Your task to perform on an android device: Show me productivity apps on the Play Store Image 0: 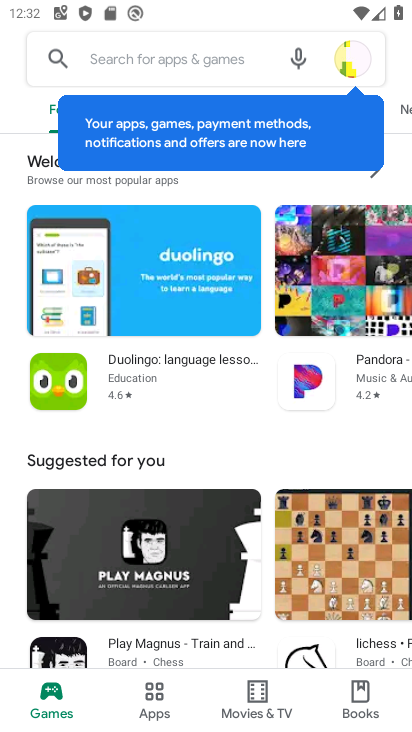
Step 0: press home button
Your task to perform on an android device: Show me productivity apps on the Play Store Image 1: 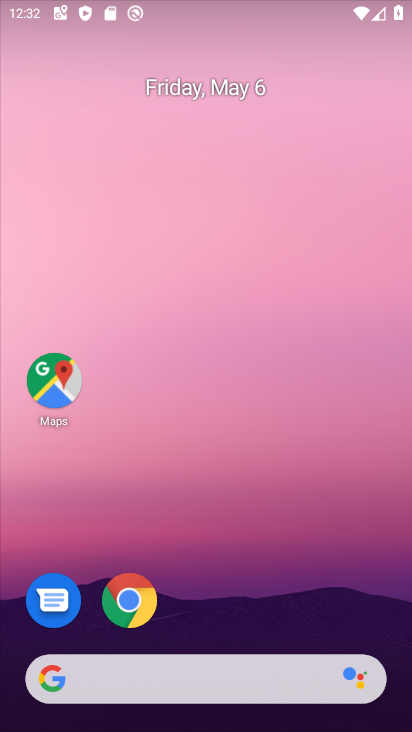
Step 1: drag from (354, 606) to (299, 3)
Your task to perform on an android device: Show me productivity apps on the Play Store Image 2: 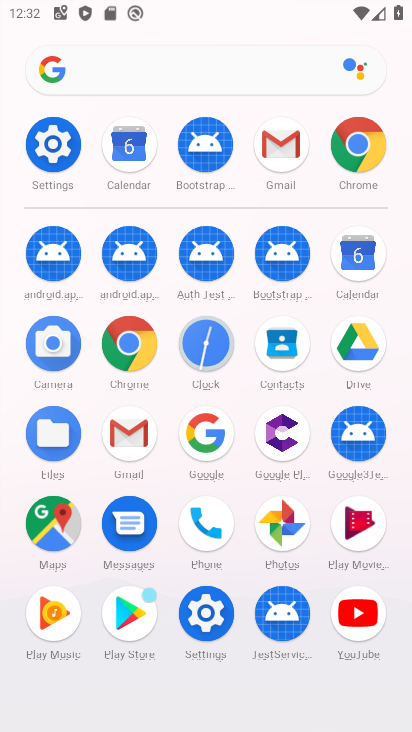
Step 2: click (130, 629)
Your task to perform on an android device: Show me productivity apps on the Play Store Image 3: 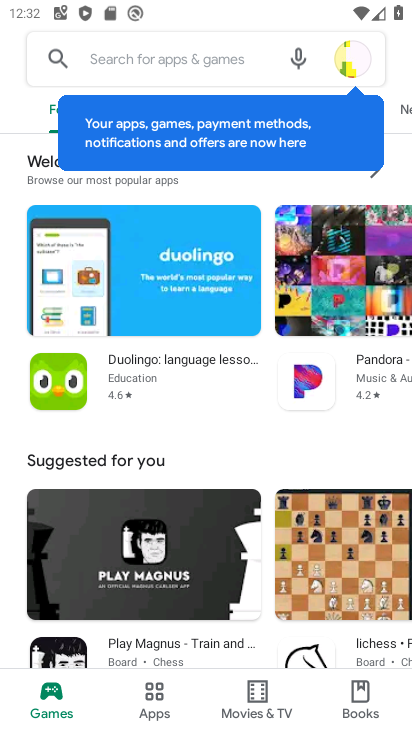
Step 3: task complete